Your task to perform on an android device: open app "eBay: The shopping marketplace" Image 0: 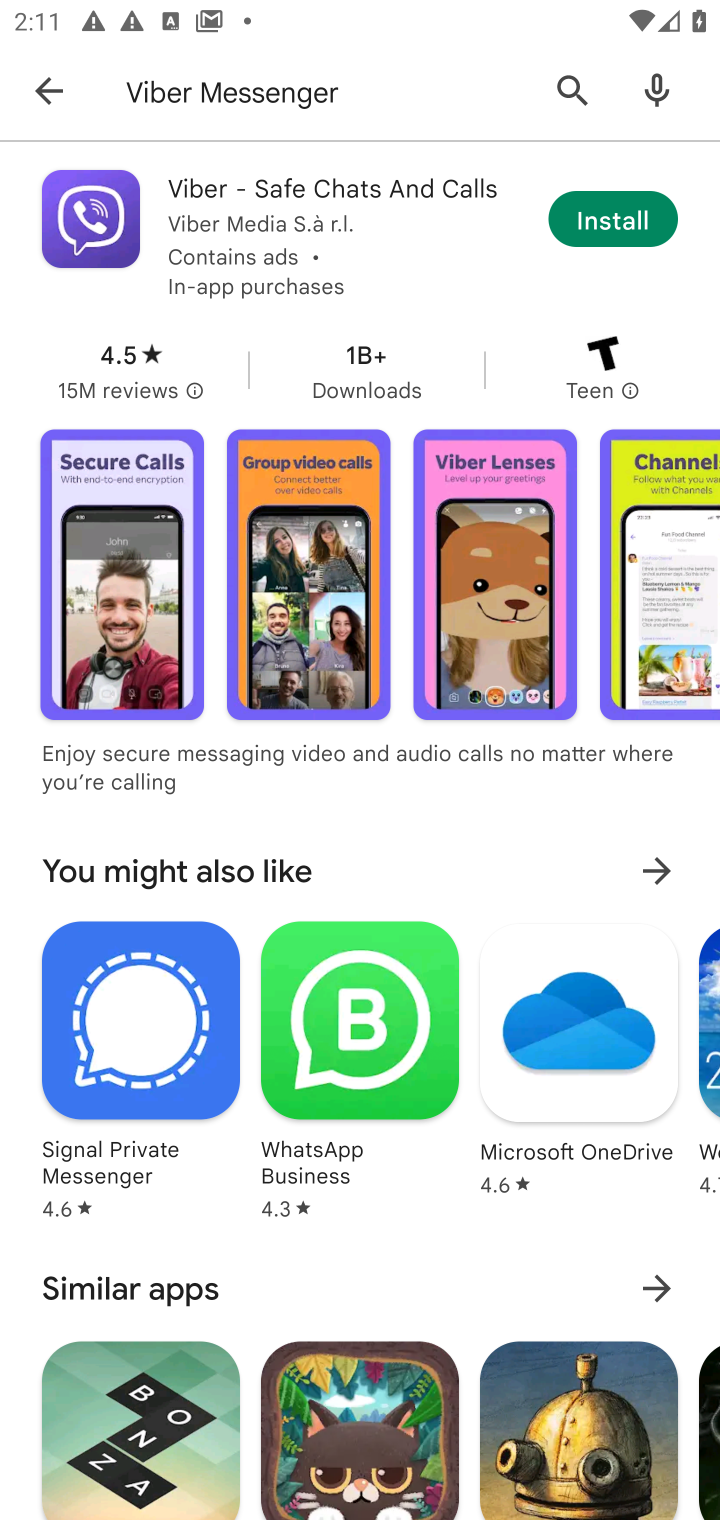
Step 0: click (337, 91)
Your task to perform on an android device: open app "eBay: The shopping marketplace" Image 1: 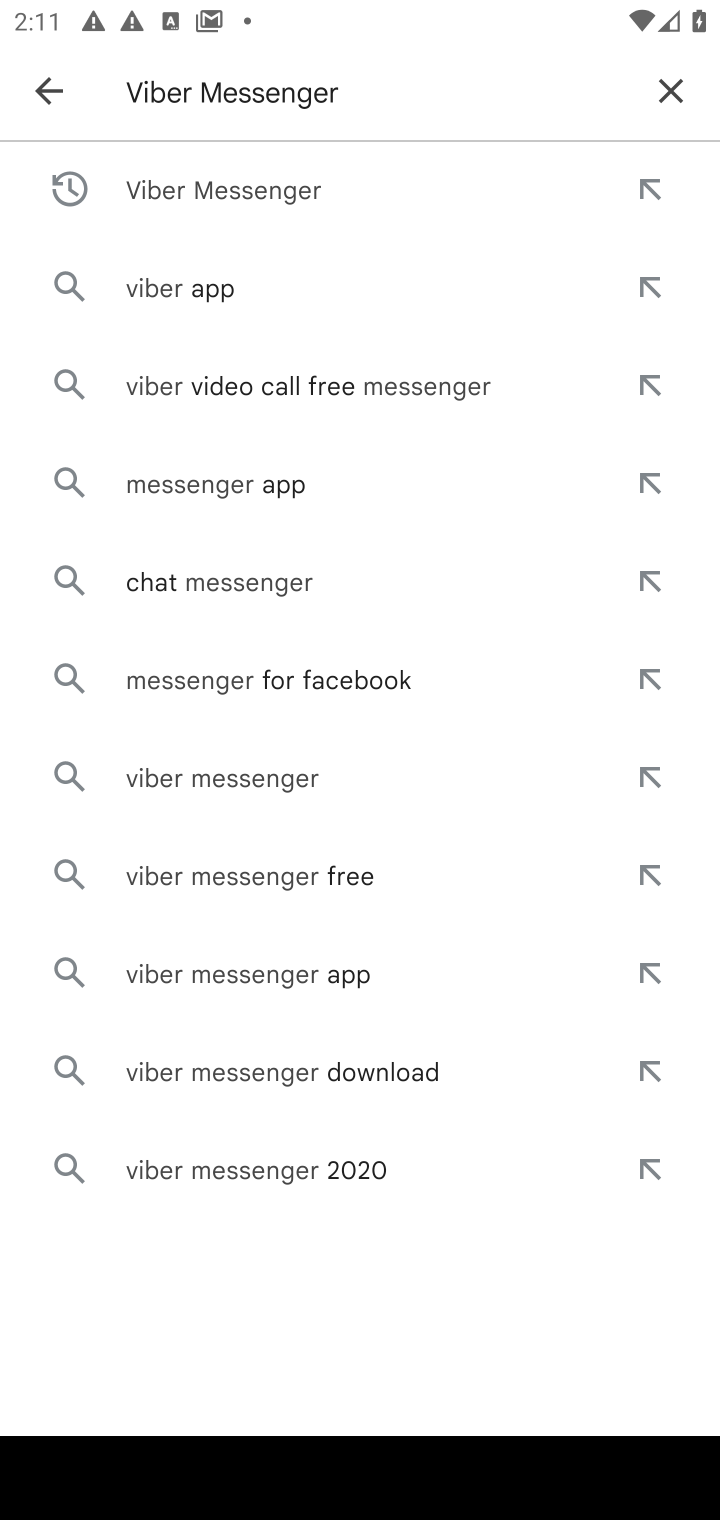
Step 1: click (677, 82)
Your task to perform on an android device: open app "eBay: The shopping marketplace" Image 2: 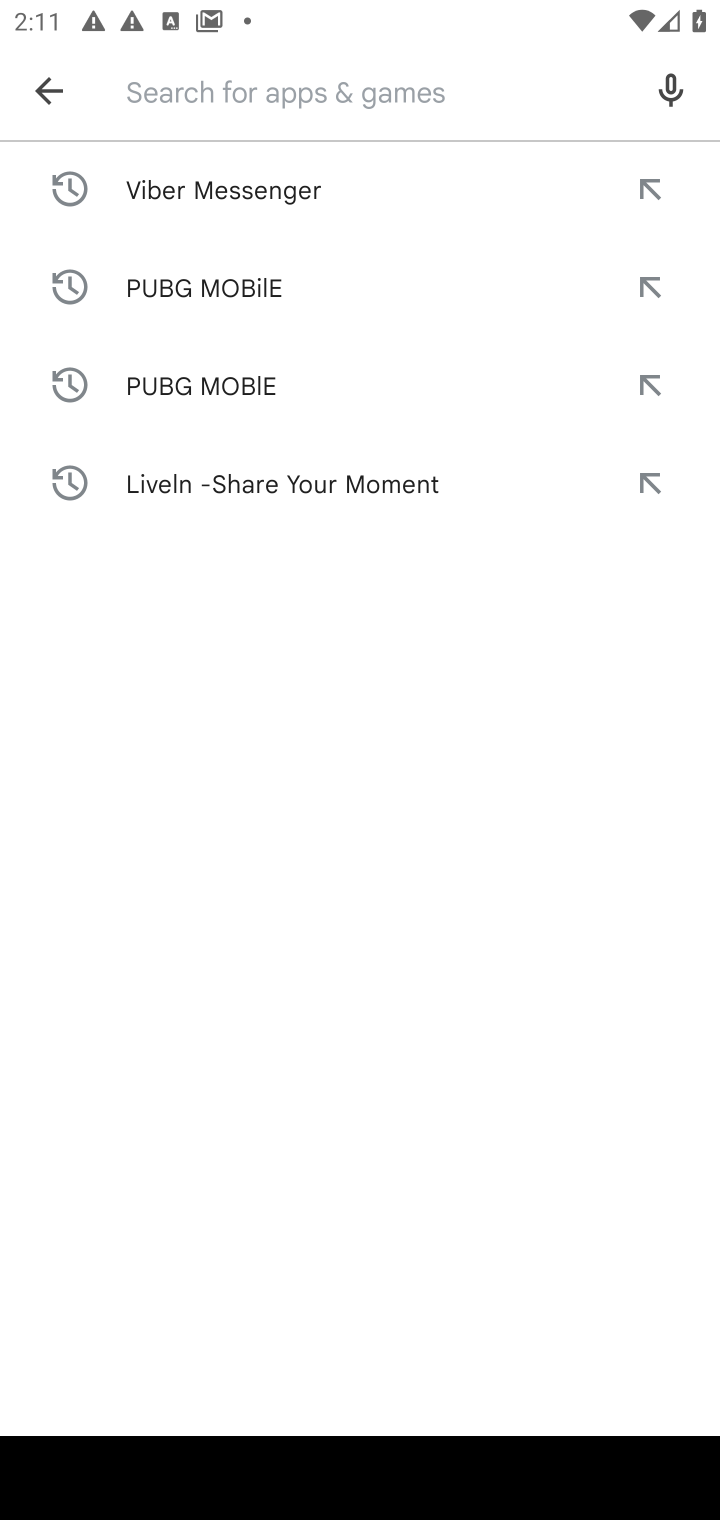
Step 2: type "eBay: The s"
Your task to perform on an android device: open app "eBay: The shopping marketplace" Image 3: 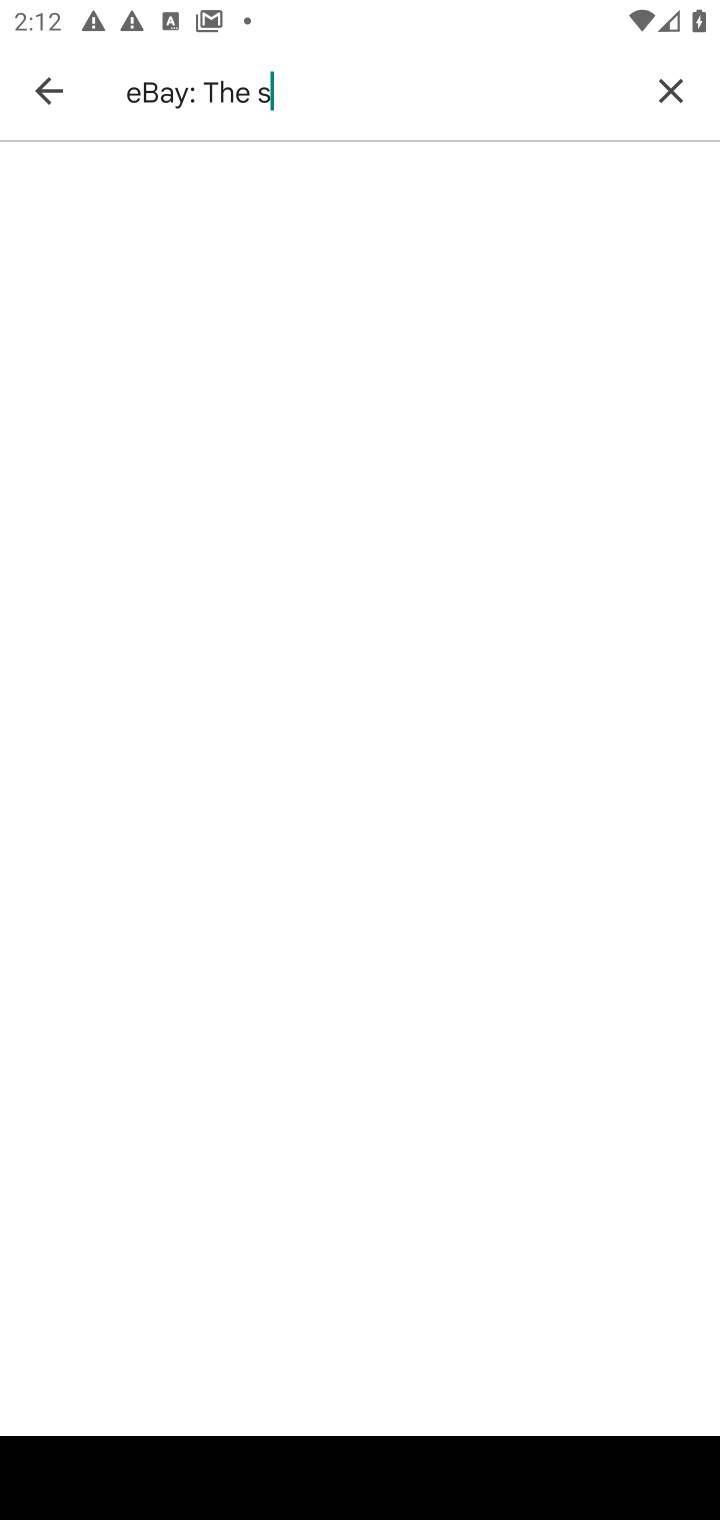
Step 3: type "hopping marketplace"
Your task to perform on an android device: open app "eBay: The shopping marketplace" Image 4: 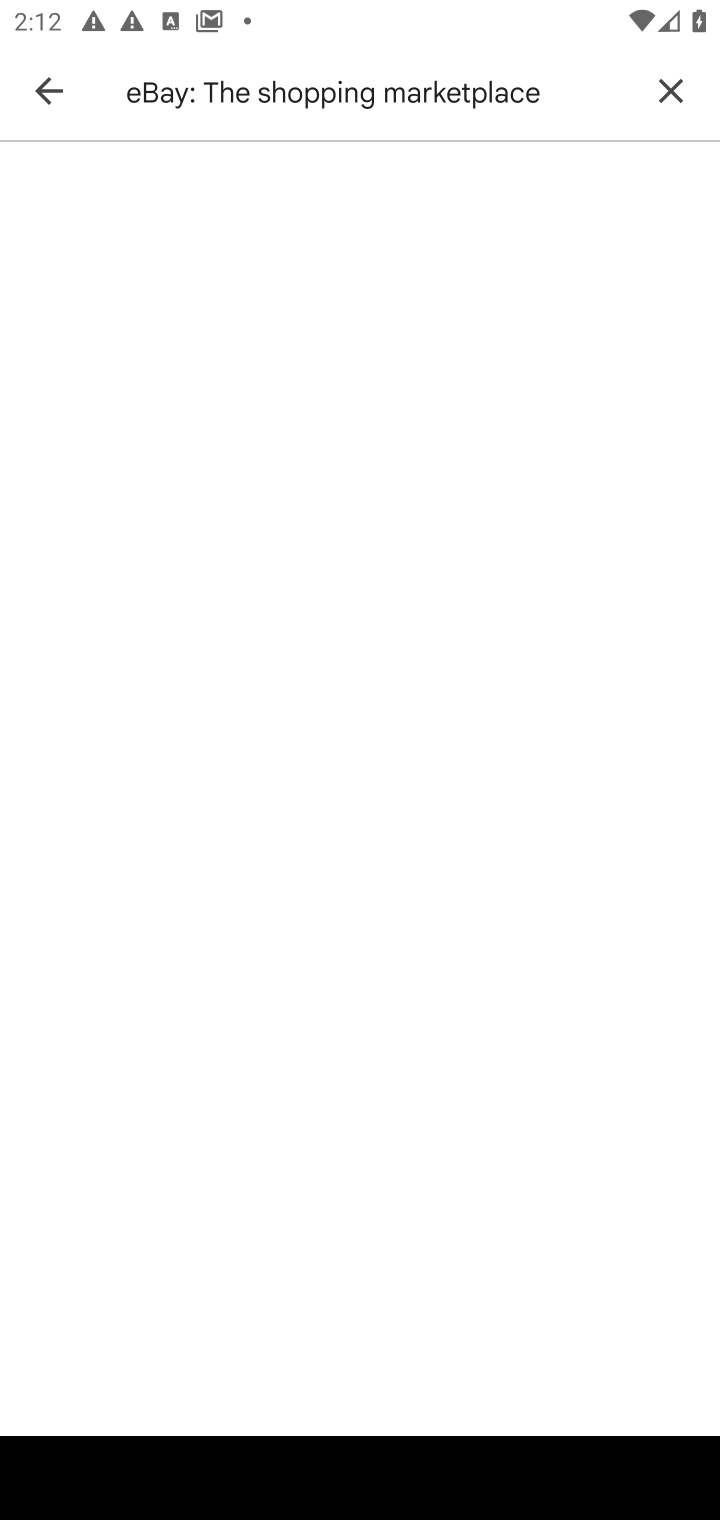
Step 4: press enter
Your task to perform on an android device: open app "eBay: The shopping marketplace" Image 5: 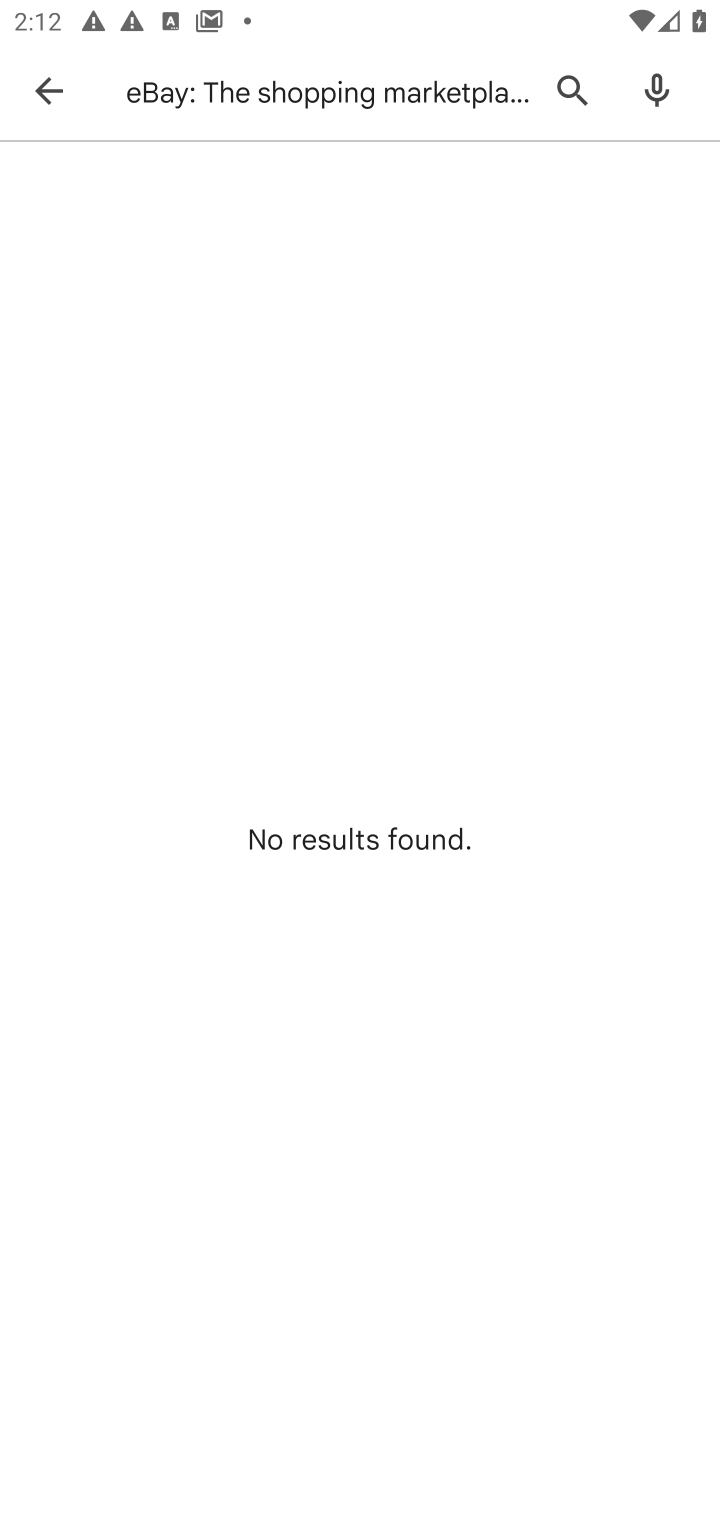
Step 5: task complete